Your task to perform on an android device: open chrome privacy settings Image 0: 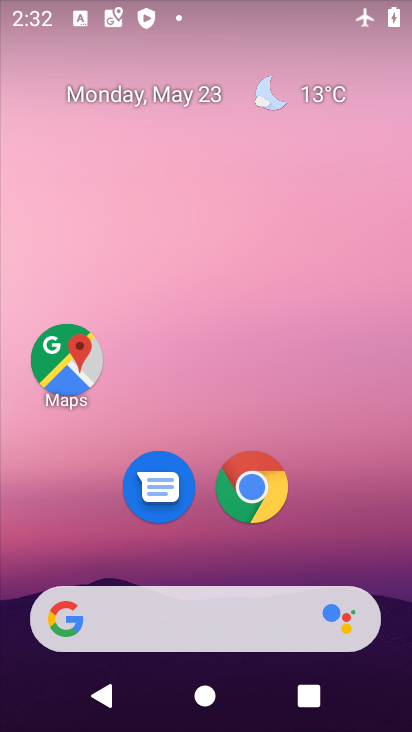
Step 0: click (254, 487)
Your task to perform on an android device: open chrome privacy settings Image 1: 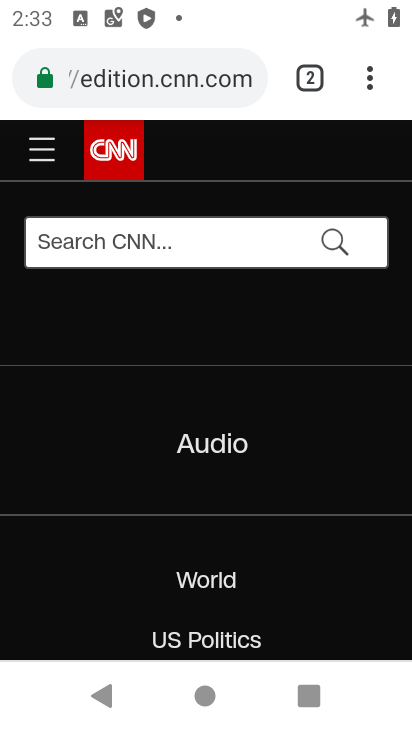
Step 1: click (369, 79)
Your task to perform on an android device: open chrome privacy settings Image 2: 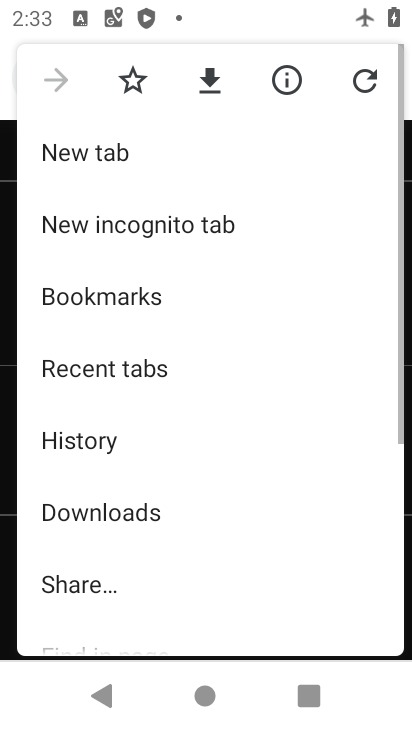
Step 2: drag from (176, 480) to (132, 13)
Your task to perform on an android device: open chrome privacy settings Image 3: 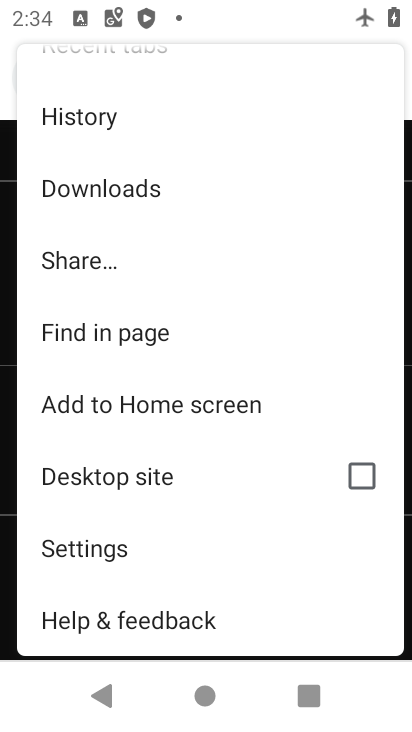
Step 3: click (100, 552)
Your task to perform on an android device: open chrome privacy settings Image 4: 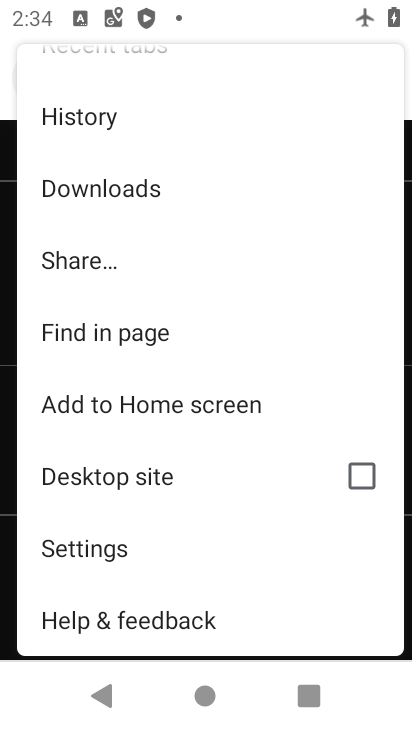
Step 4: click (100, 552)
Your task to perform on an android device: open chrome privacy settings Image 5: 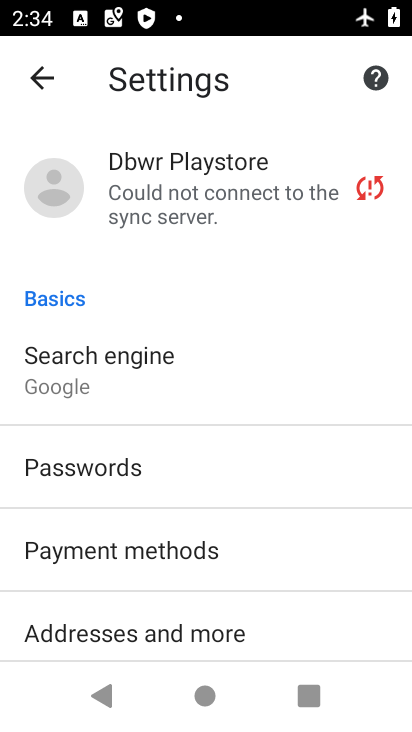
Step 5: drag from (323, 603) to (307, 190)
Your task to perform on an android device: open chrome privacy settings Image 6: 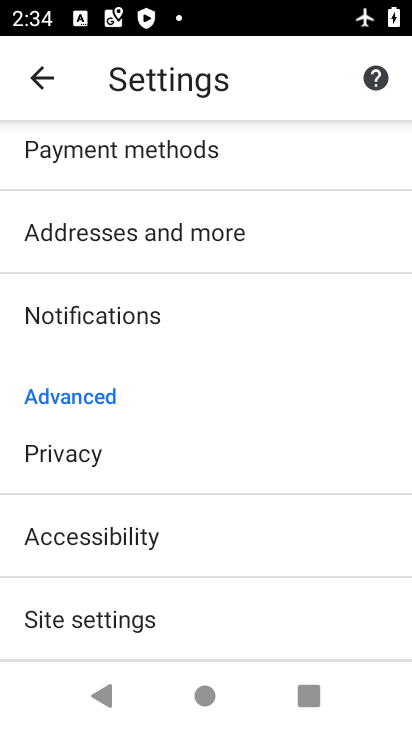
Step 6: click (75, 447)
Your task to perform on an android device: open chrome privacy settings Image 7: 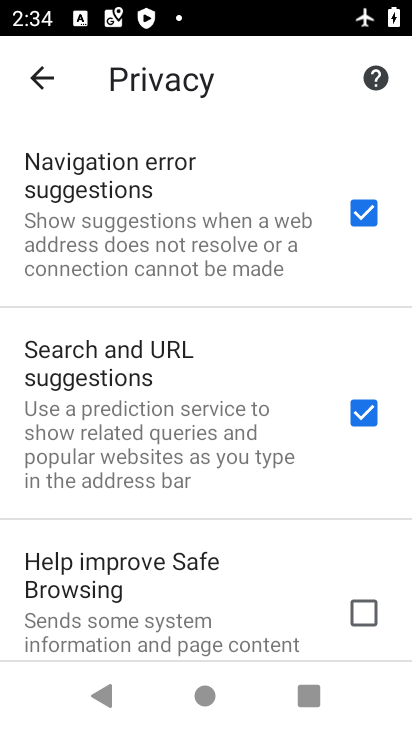
Step 7: task complete